Your task to perform on an android device: Open Youtube and go to "Your channel" Image 0: 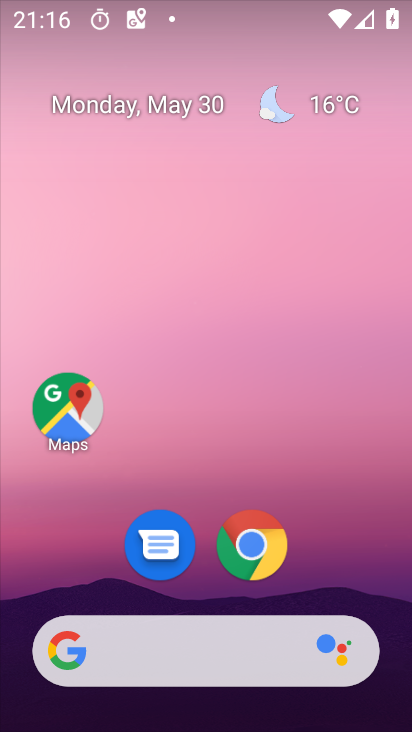
Step 0: drag from (318, 563) to (346, 64)
Your task to perform on an android device: Open Youtube and go to "Your channel" Image 1: 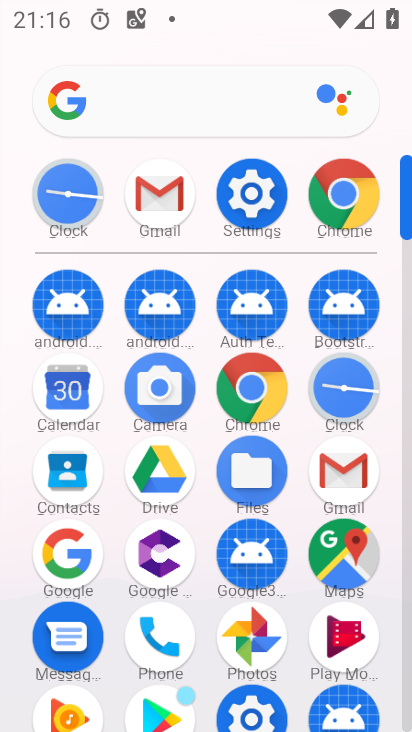
Step 1: drag from (302, 602) to (320, 122)
Your task to perform on an android device: Open Youtube and go to "Your channel" Image 2: 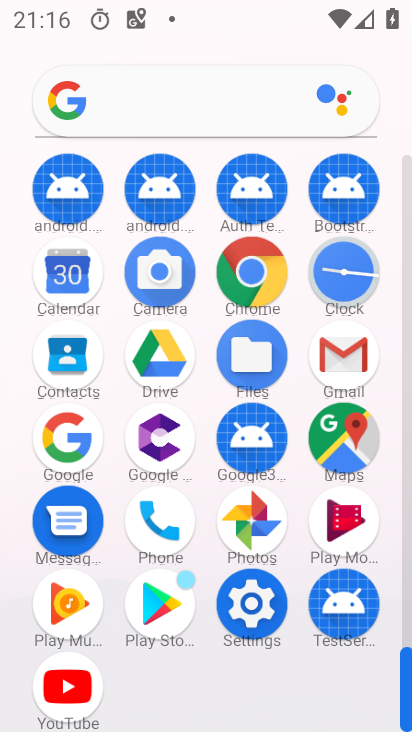
Step 2: click (56, 692)
Your task to perform on an android device: Open Youtube and go to "Your channel" Image 3: 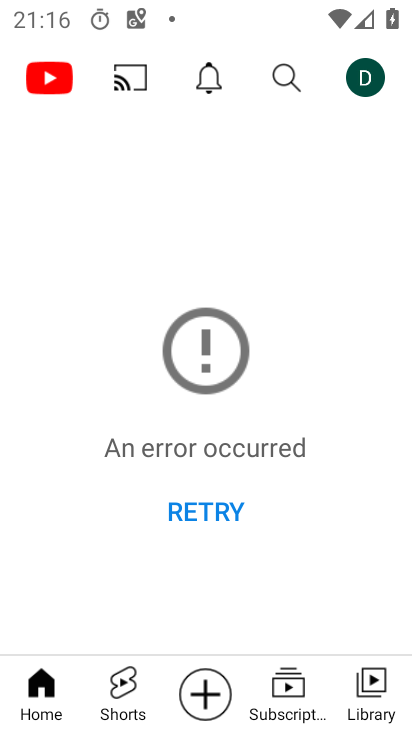
Step 3: click (365, 88)
Your task to perform on an android device: Open Youtube and go to "Your channel" Image 4: 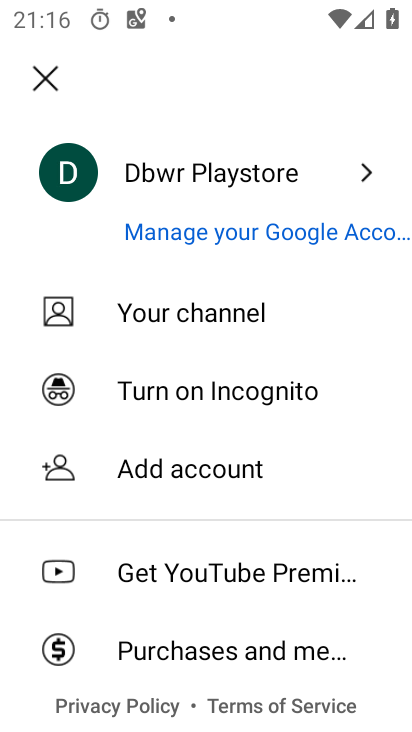
Step 4: click (184, 315)
Your task to perform on an android device: Open Youtube and go to "Your channel" Image 5: 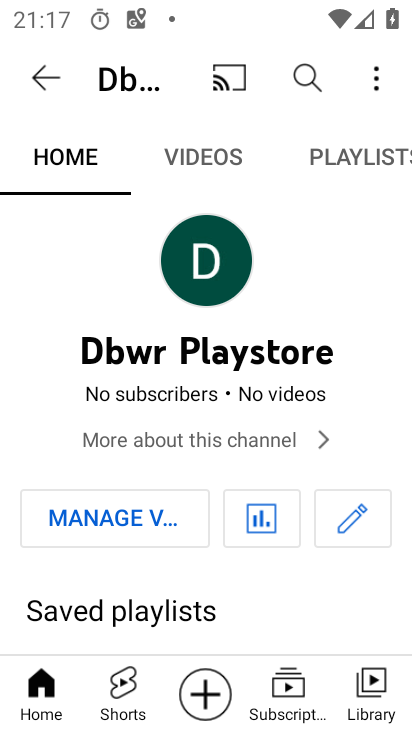
Step 5: task complete